Your task to perform on an android device: Show me recent news Image 0: 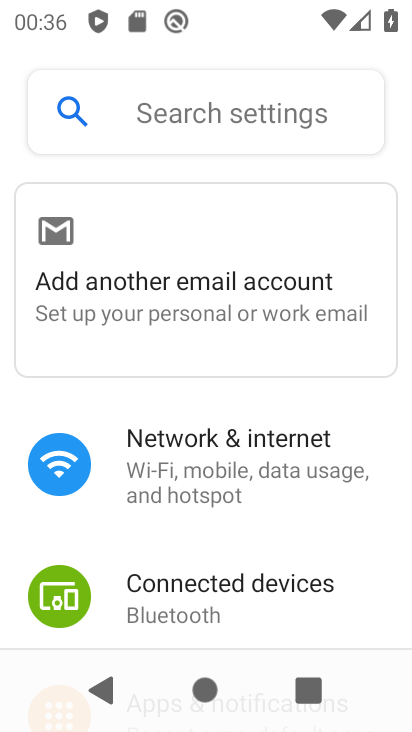
Step 0: press home button
Your task to perform on an android device: Show me recent news Image 1: 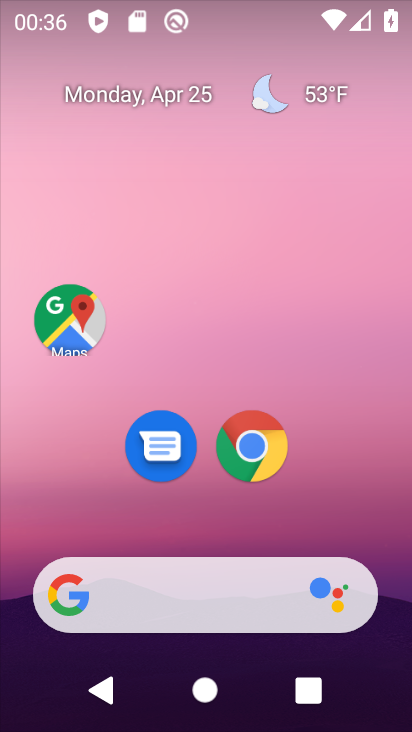
Step 1: click (226, 582)
Your task to perform on an android device: Show me recent news Image 2: 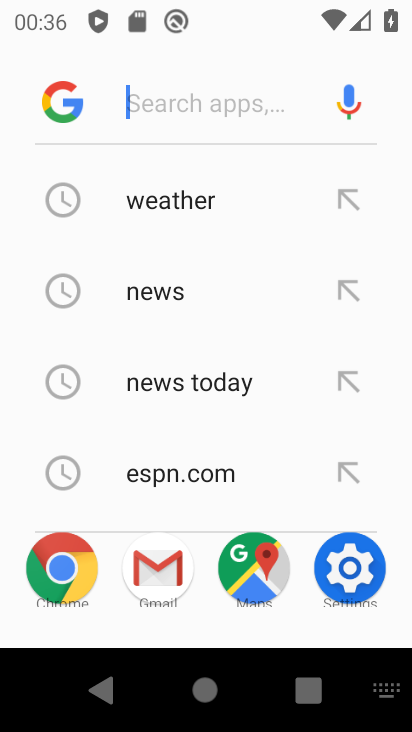
Step 2: type "recent news"
Your task to perform on an android device: Show me recent news Image 3: 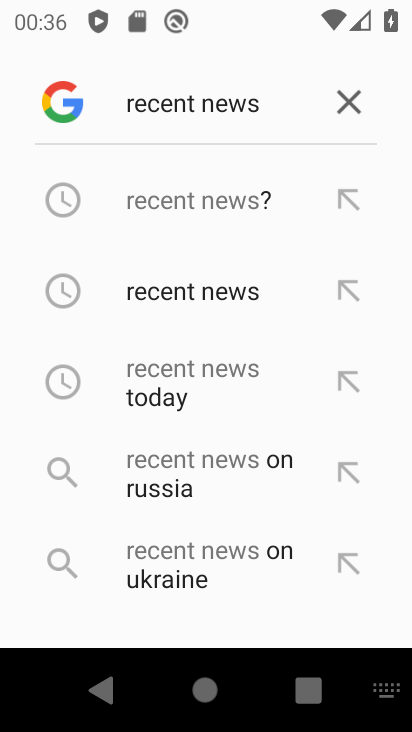
Step 3: click (215, 300)
Your task to perform on an android device: Show me recent news Image 4: 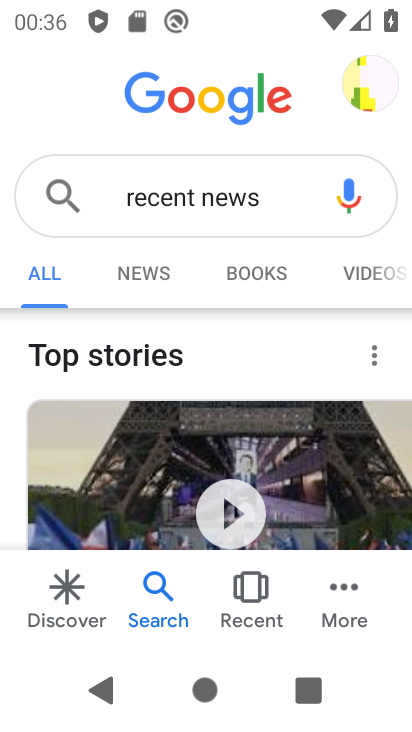
Step 4: task complete